Your task to perform on an android device: Go to location settings Image 0: 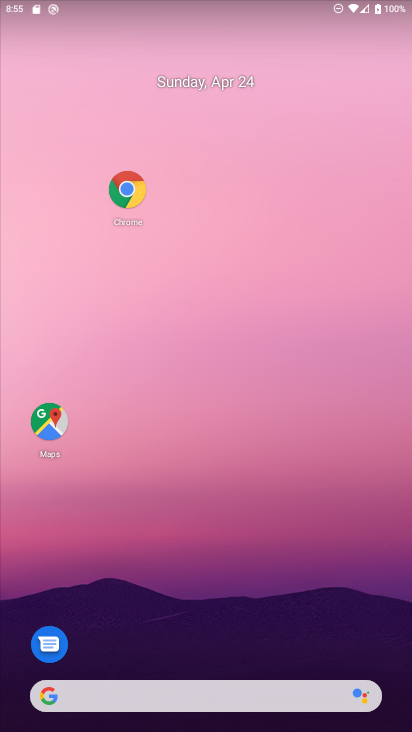
Step 0: drag from (221, 504) to (228, 160)
Your task to perform on an android device: Go to location settings Image 1: 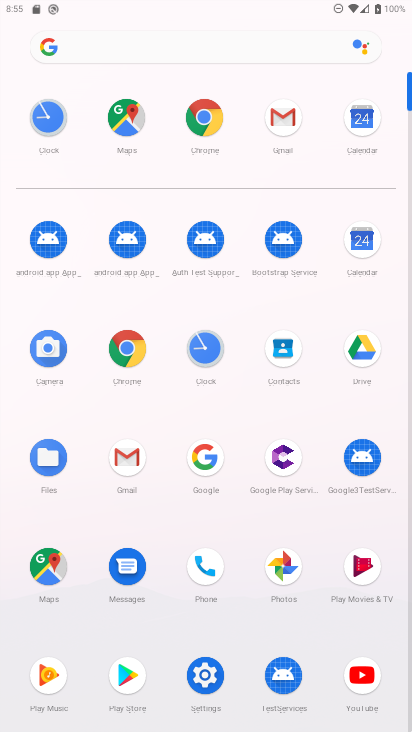
Step 1: click (210, 675)
Your task to perform on an android device: Go to location settings Image 2: 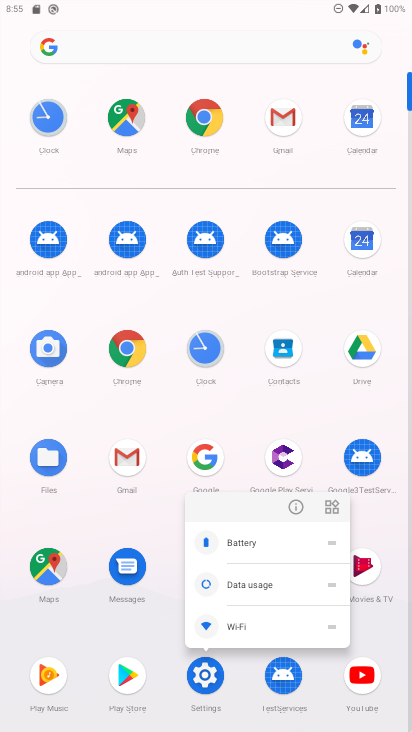
Step 2: click (290, 507)
Your task to perform on an android device: Go to location settings Image 3: 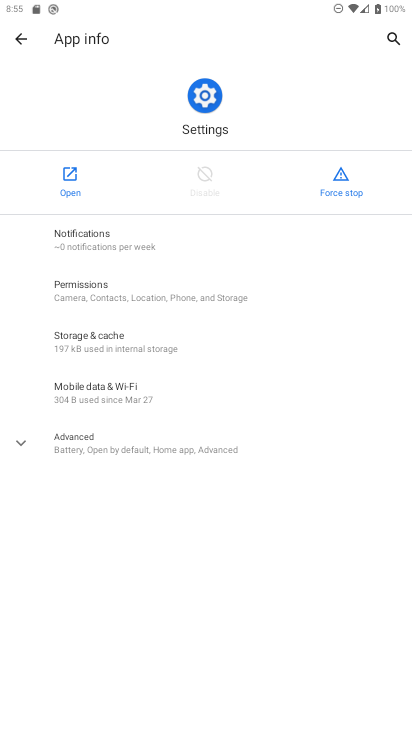
Step 3: click (57, 172)
Your task to perform on an android device: Go to location settings Image 4: 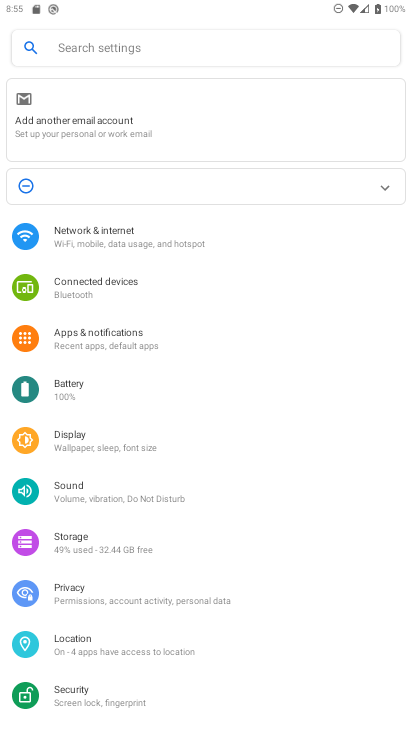
Step 4: click (116, 646)
Your task to perform on an android device: Go to location settings Image 5: 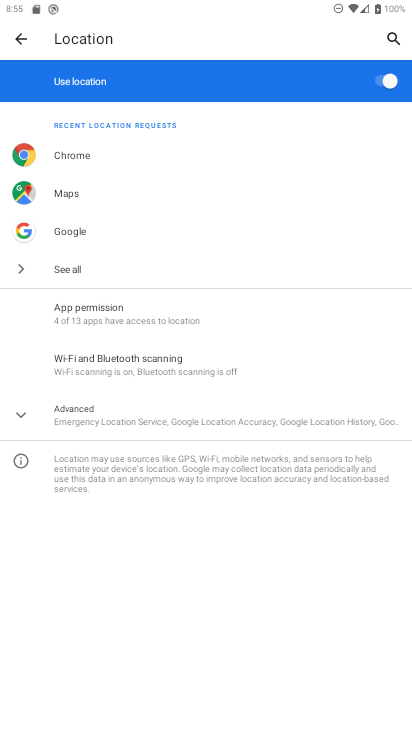
Step 5: click (168, 415)
Your task to perform on an android device: Go to location settings Image 6: 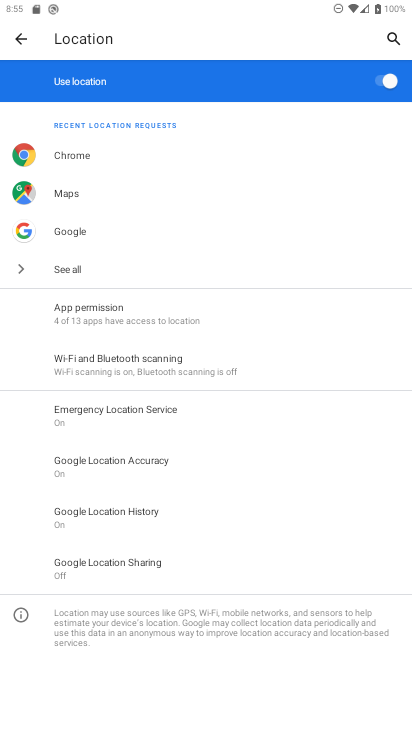
Step 6: click (389, 75)
Your task to perform on an android device: Go to location settings Image 7: 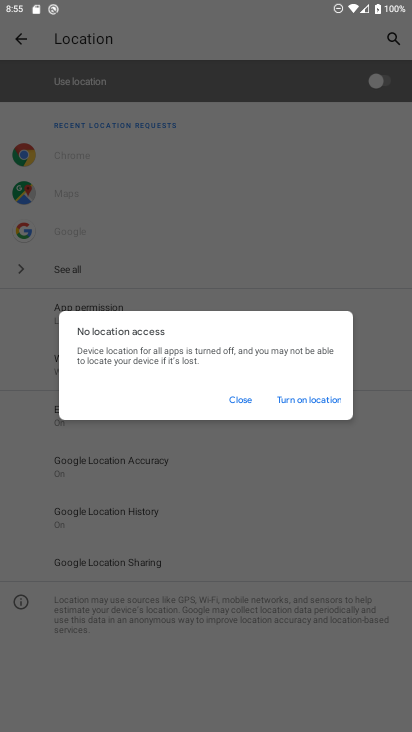
Step 7: task complete